Your task to perform on an android device: turn on bluetooth scan Image 0: 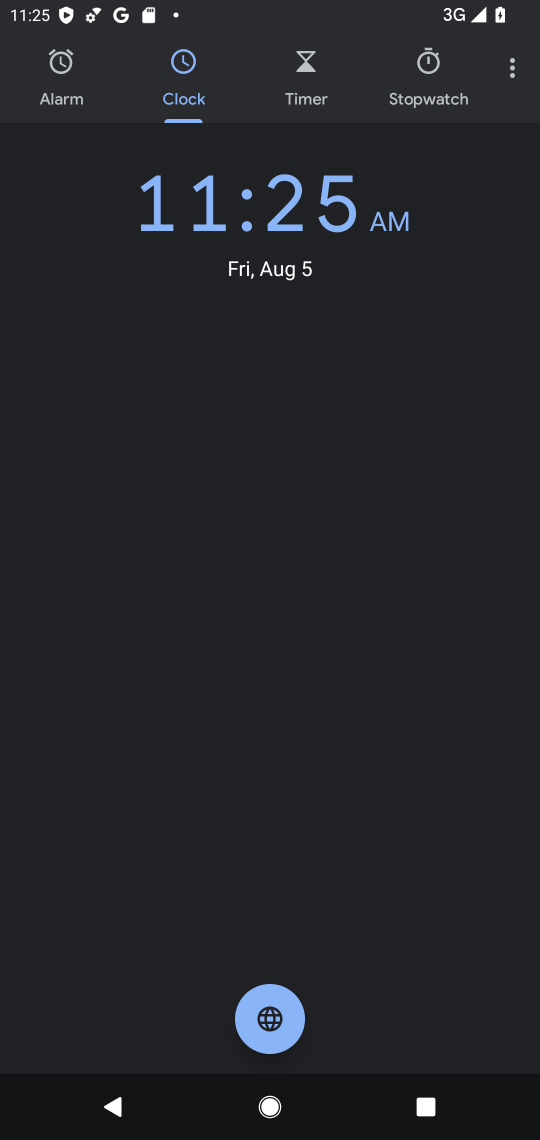
Step 0: press home button
Your task to perform on an android device: turn on bluetooth scan Image 1: 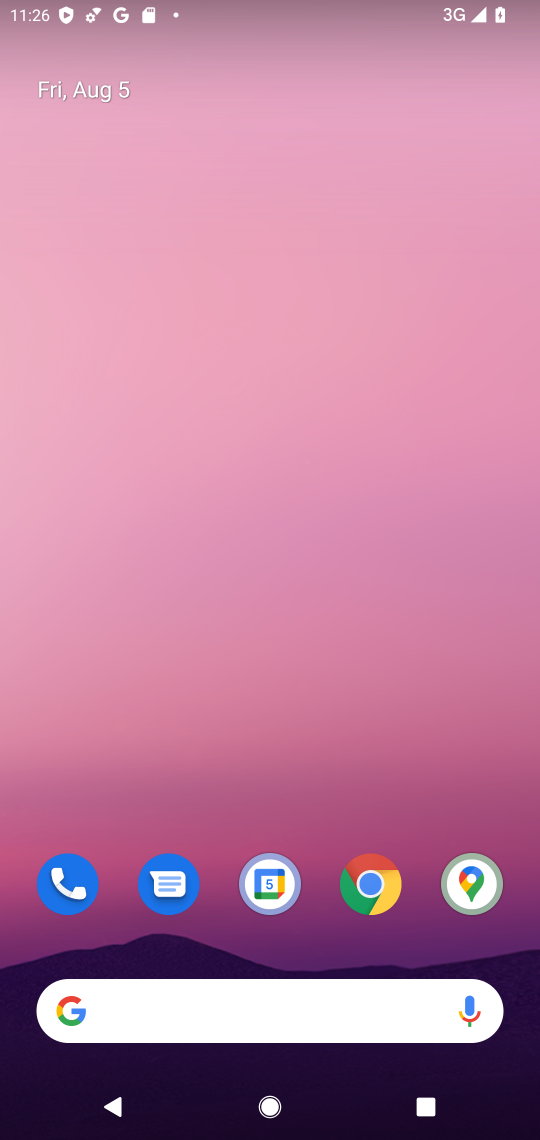
Step 1: drag from (317, 741) to (315, 0)
Your task to perform on an android device: turn on bluetooth scan Image 2: 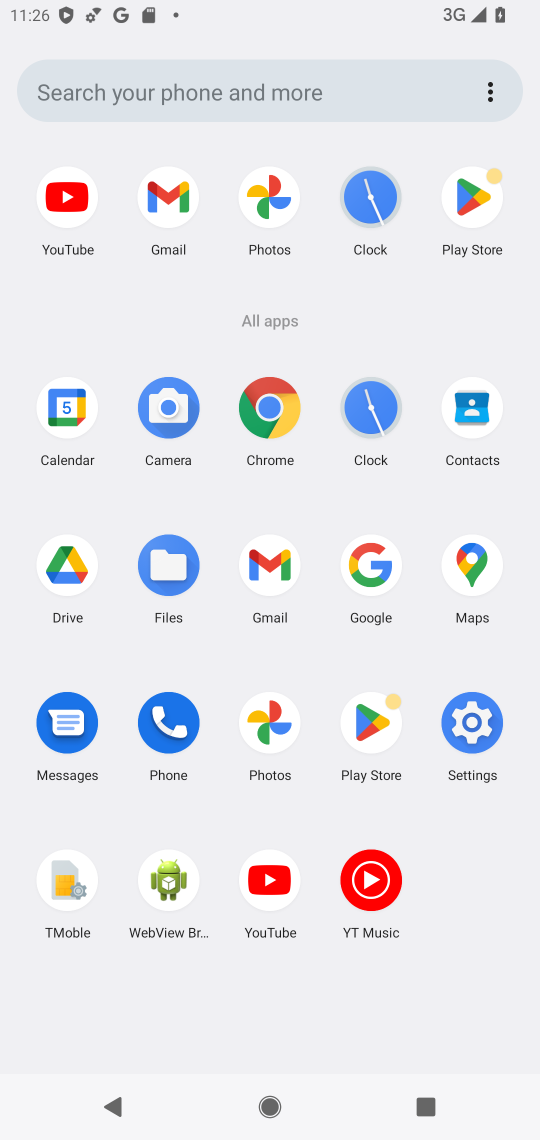
Step 2: click (482, 724)
Your task to perform on an android device: turn on bluetooth scan Image 3: 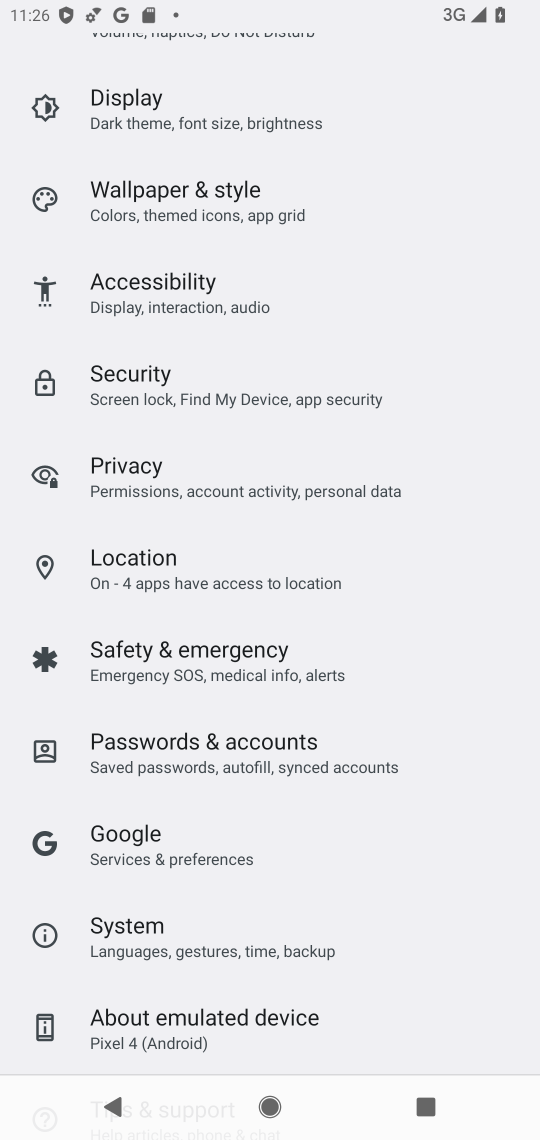
Step 3: click (184, 544)
Your task to perform on an android device: turn on bluetooth scan Image 4: 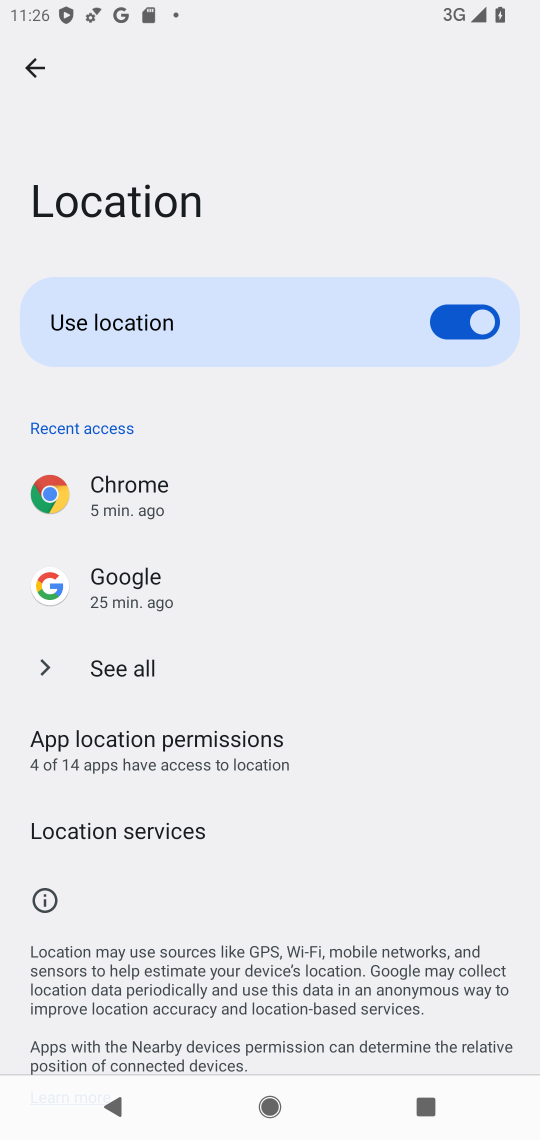
Step 4: click (157, 838)
Your task to perform on an android device: turn on bluetooth scan Image 5: 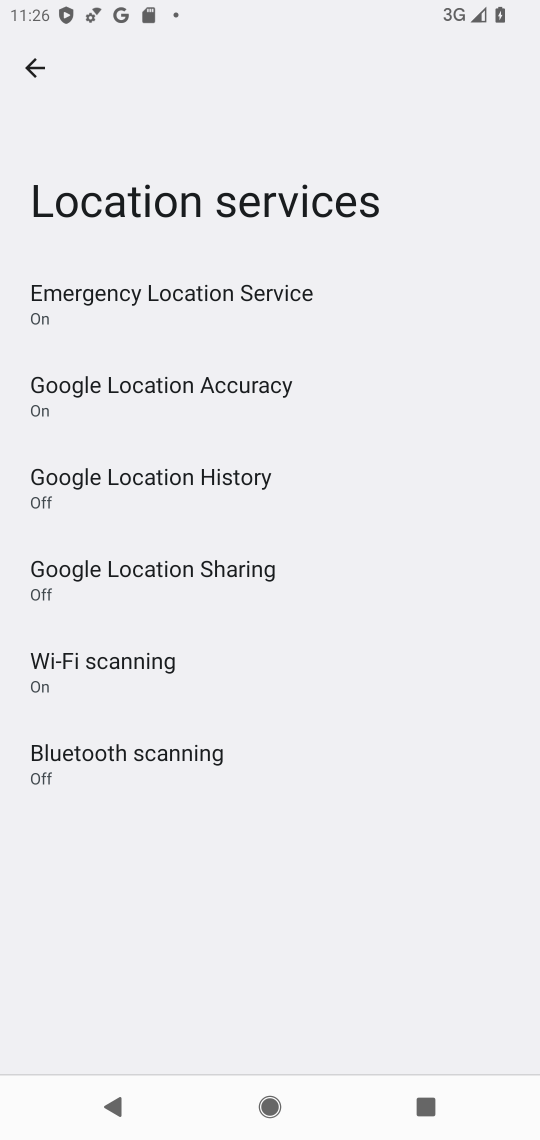
Step 5: click (162, 772)
Your task to perform on an android device: turn on bluetooth scan Image 6: 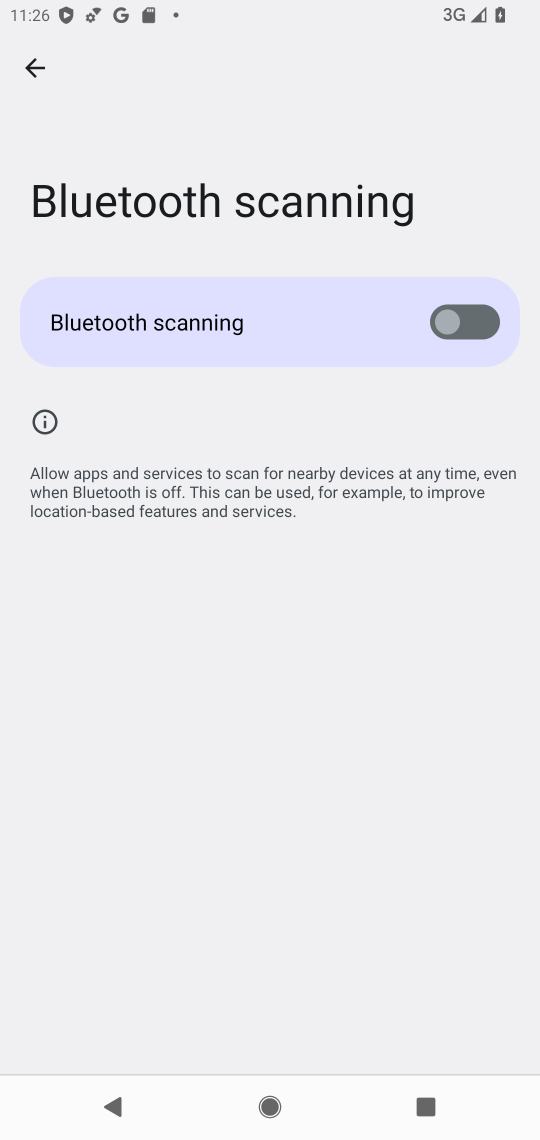
Step 6: click (486, 300)
Your task to perform on an android device: turn on bluetooth scan Image 7: 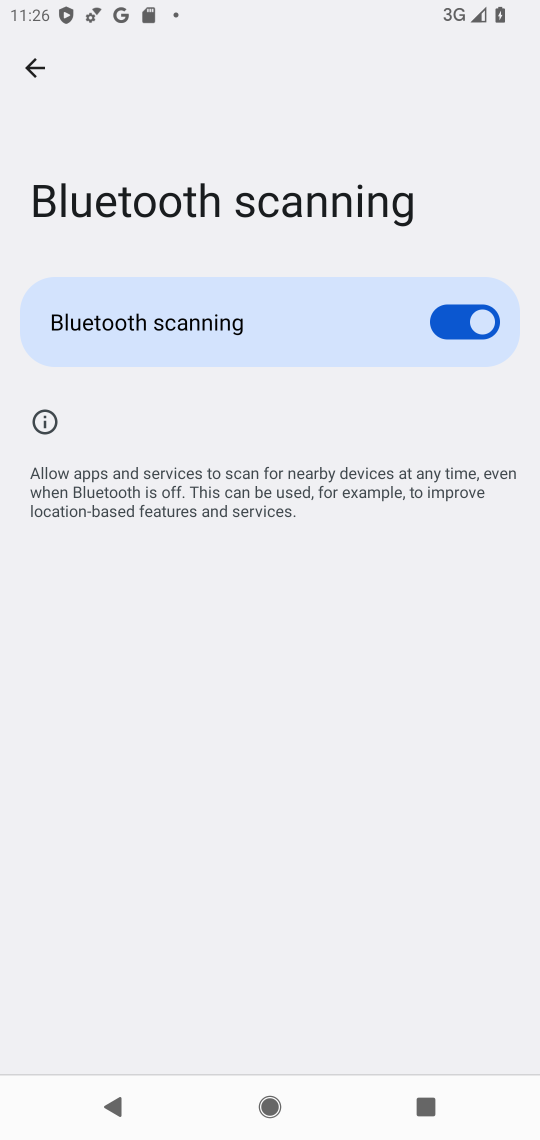
Step 7: task complete